Your task to perform on an android device: Go to network settings Image 0: 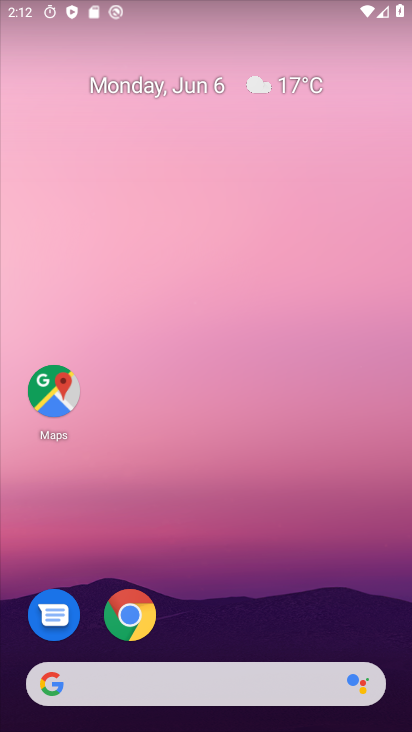
Step 0: click (234, 82)
Your task to perform on an android device: Go to network settings Image 1: 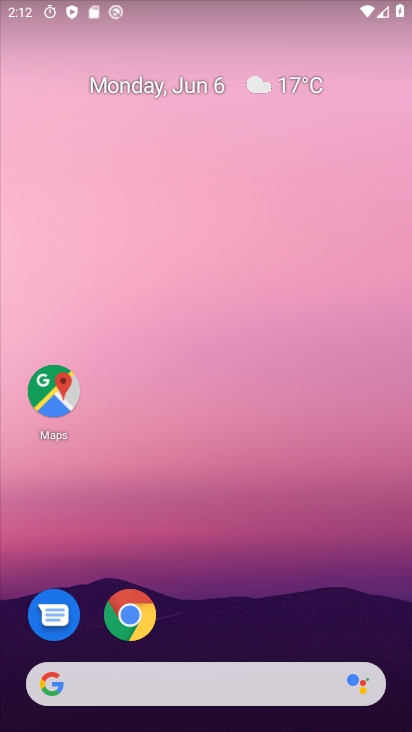
Step 1: drag from (212, 639) to (292, 264)
Your task to perform on an android device: Go to network settings Image 2: 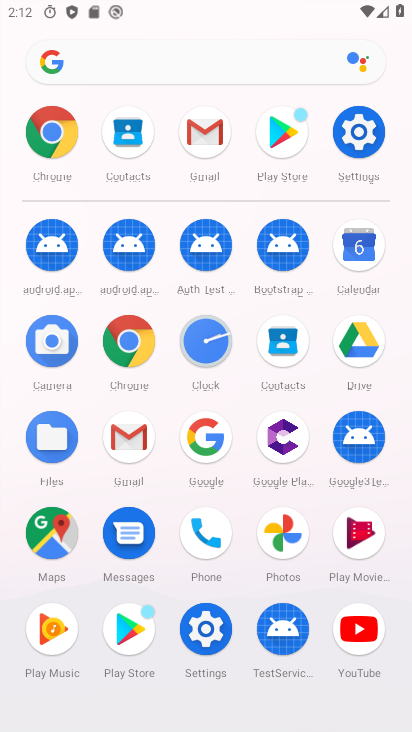
Step 2: click (342, 134)
Your task to perform on an android device: Go to network settings Image 3: 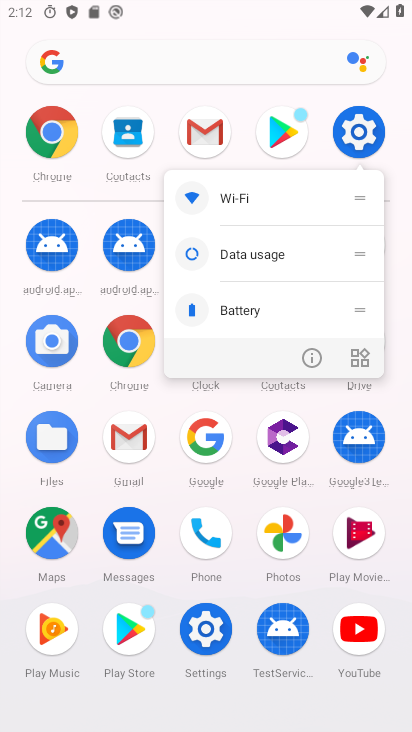
Step 3: click (310, 362)
Your task to perform on an android device: Go to network settings Image 4: 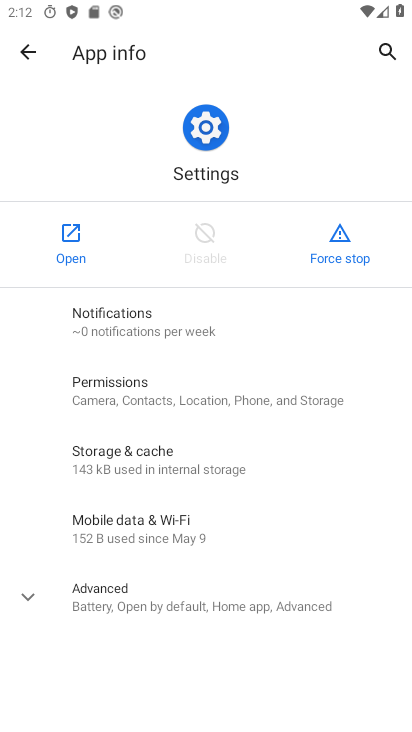
Step 4: click (78, 244)
Your task to perform on an android device: Go to network settings Image 5: 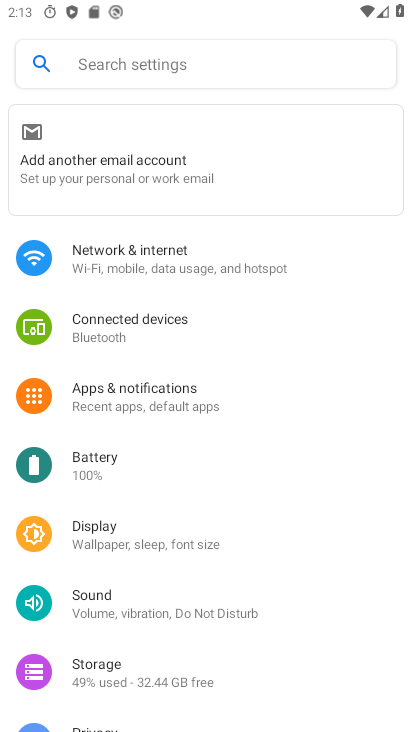
Step 5: click (161, 264)
Your task to perform on an android device: Go to network settings Image 6: 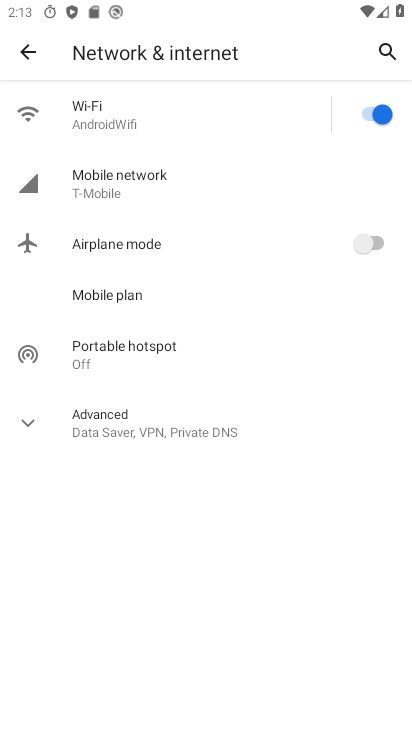
Step 6: task complete